Your task to perform on an android device: toggle show notifications on the lock screen Image 0: 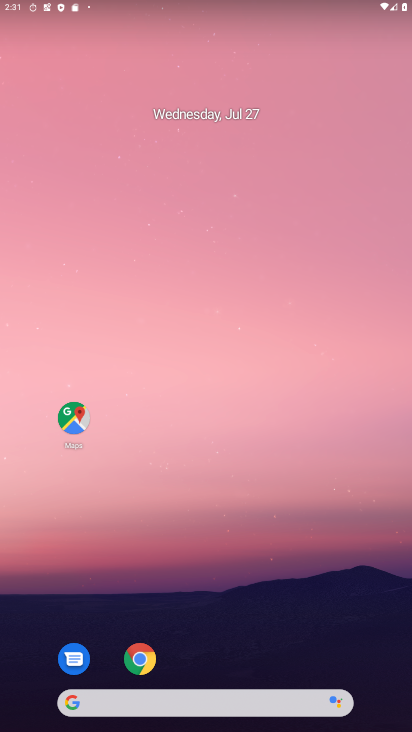
Step 0: drag from (166, 727) to (130, 163)
Your task to perform on an android device: toggle show notifications on the lock screen Image 1: 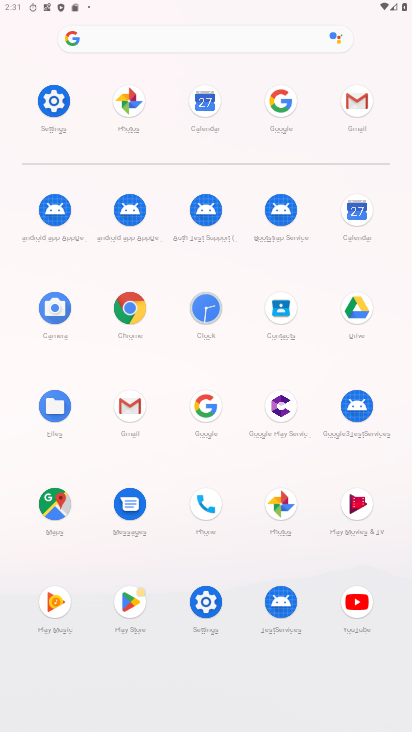
Step 1: click (52, 100)
Your task to perform on an android device: toggle show notifications on the lock screen Image 2: 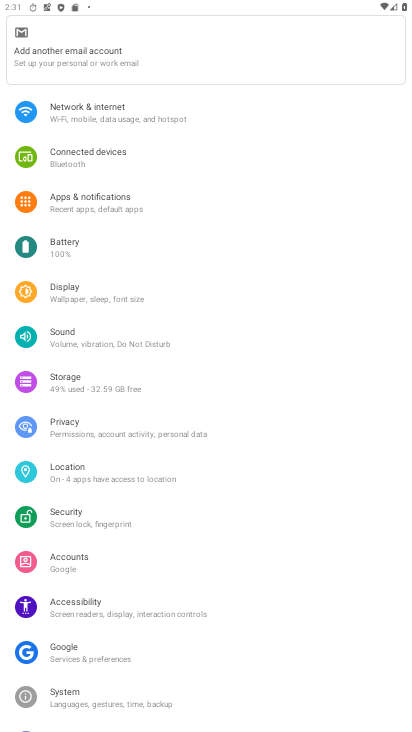
Step 2: click (76, 202)
Your task to perform on an android device: toggle show notifications on the lock screen Image 3: 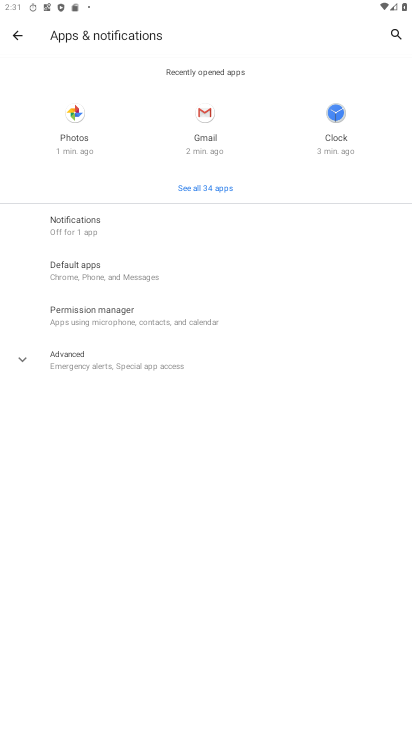
Step 3: click (75, 223)
Your task to perform on an android device: toggle show notifications on the lock screen Image 4: 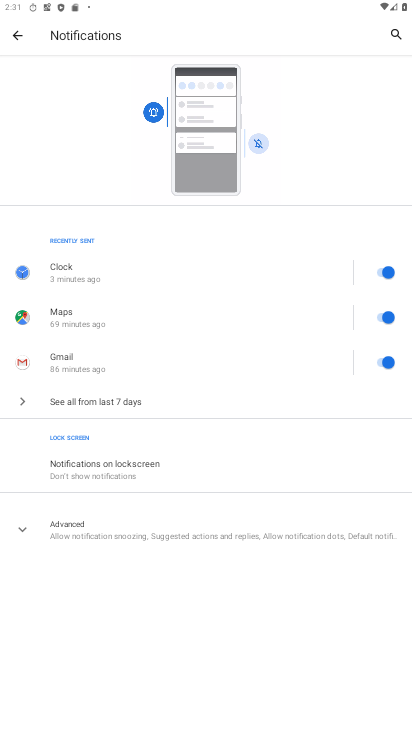
Step 4: click (113, 461)
Your task to perform on an android device: toggle show notifications on the lock screen Image 5: 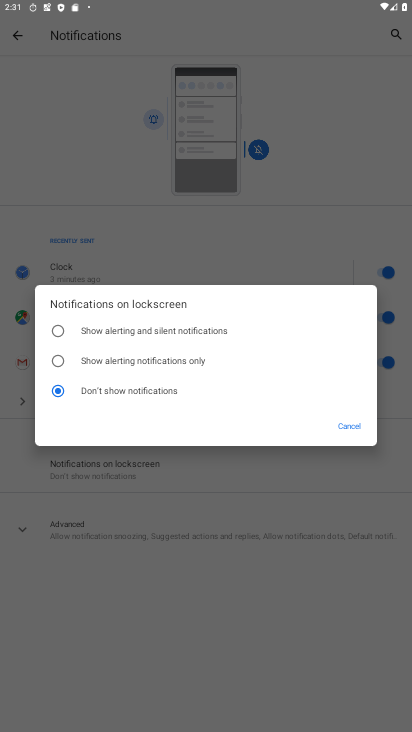
Step 5: click (57, 328)
Your task to perform on an android device: toggle show notifications on the lock screen Image 6: 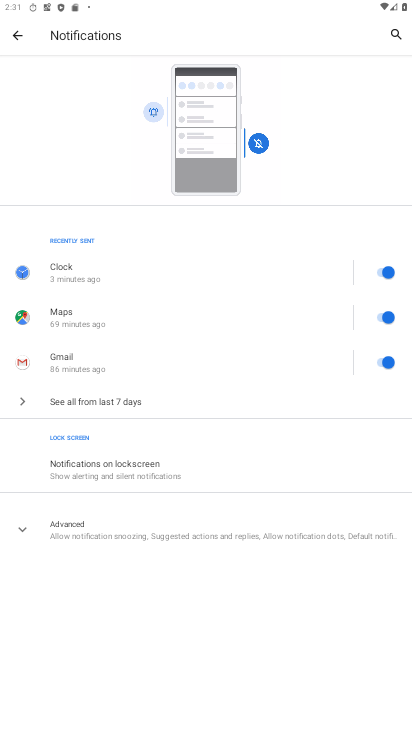
Step 6: task complete